Your task to perform on an android device: Open calendar and show me the third week of next month Image 0: 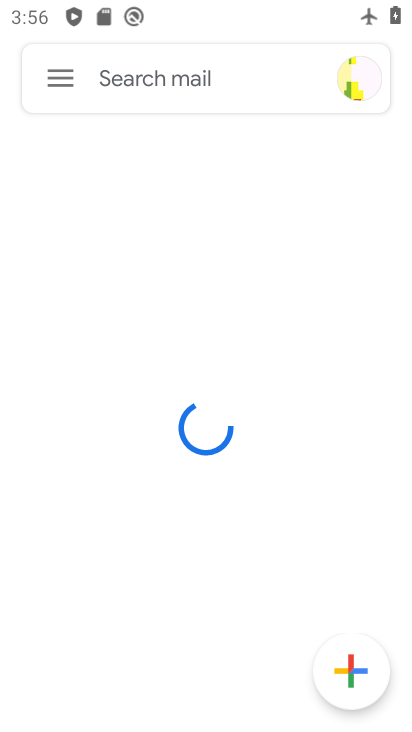
Step 0: press home button
Your task to perform on an android device: Open calendar and show me the third week of next month Image 1: 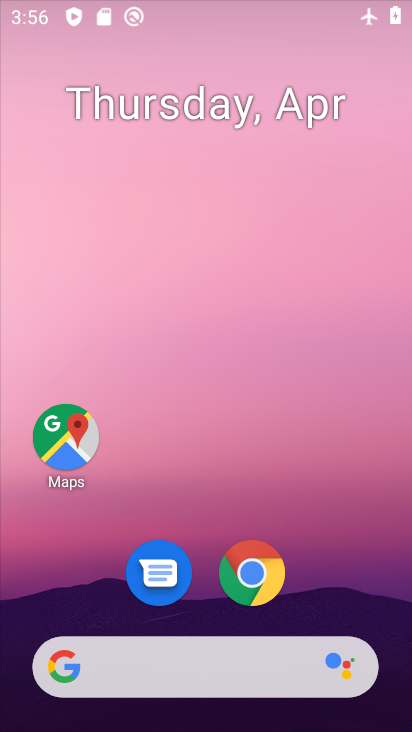
Step 1: drag from (364, 601) to (275, 102)
Your task to perform on an android device: Open calendar and show me the third week of next month Image 2: 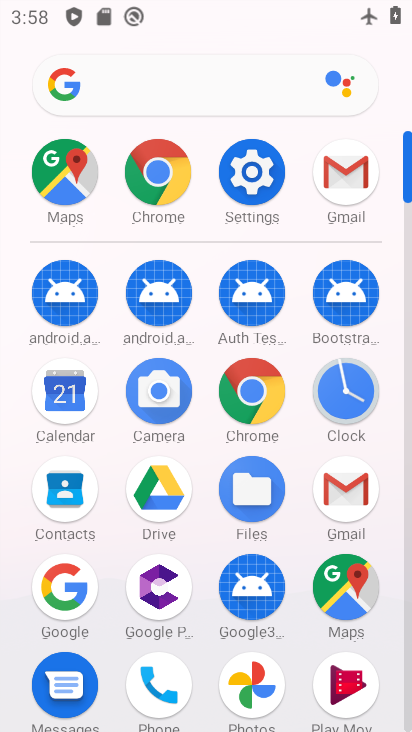
Step 2: click (68, 396)
Your task to perform on an android device: Open calendar and show me the third week of next month Image 3: 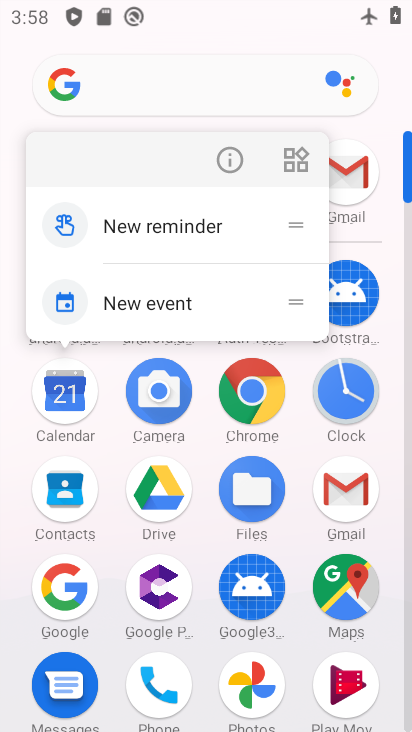
Step 3: click (68, 396)
Your task to perform on an android device: Open calendar and show me the third week of next month Image 4: 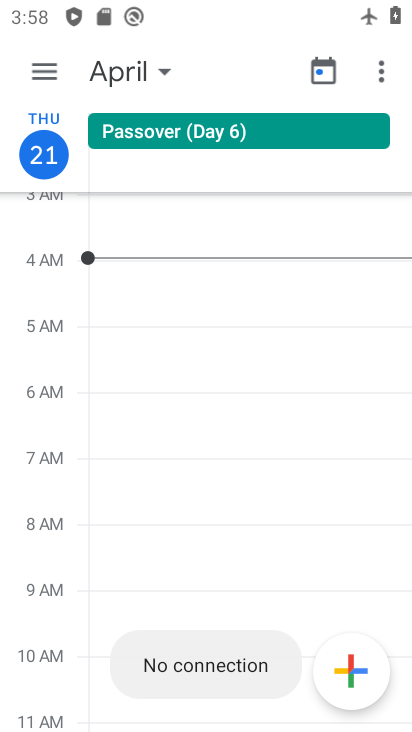
Step 4: click (68, 396)
Your task to perform on an android device: Open calendar and show me the third week of next month Image 5: 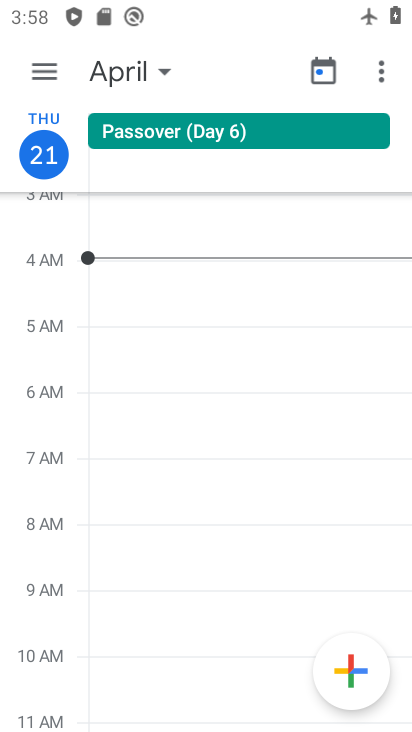
Step 5: click (109, 81)
Your task to perform on an android device: Open calendar and show me the third week of next month Image 6: 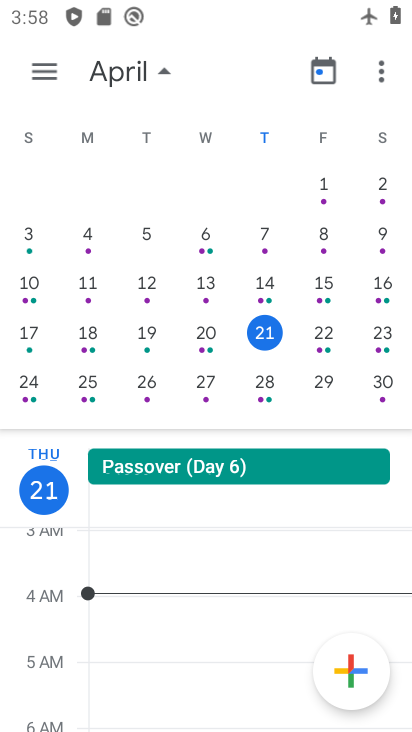
Step 6: drag from (366, 305) to (5, 282)
Your task to perform on an android device: Open calendar and show me the third week of next month Image 7: 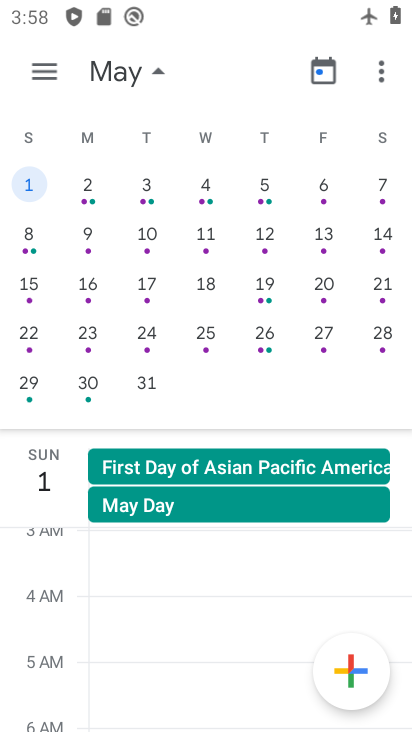
Step 7: click (259, 293)
Your task to perform on an android device: Open calendar and show me the third week of next month Image 8: 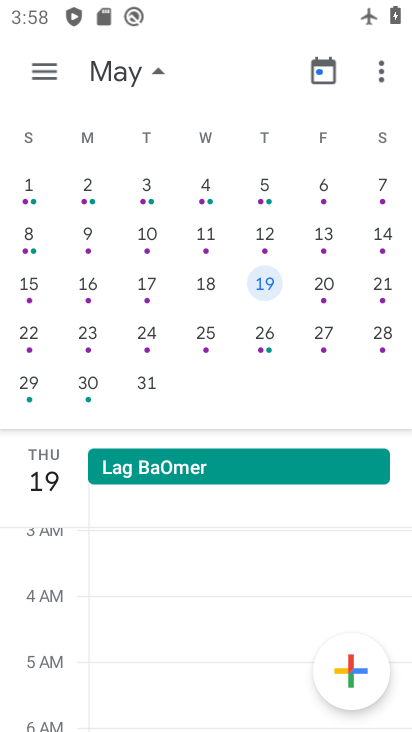
Step 8: task complete